Your task to perform on an android device: set the stopwatch Image 0: 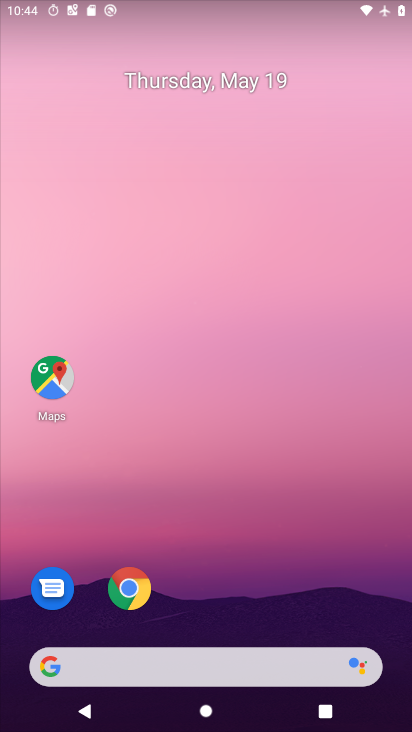
Step 0: press home button
Your task to perform on an android device: set the stopwatch Image 1: 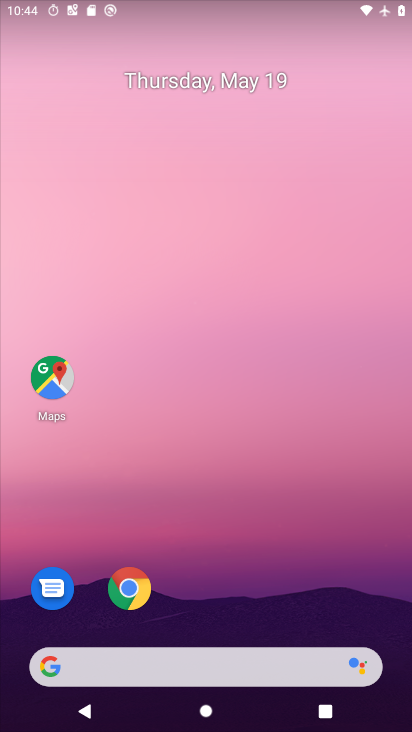
Step 1: drag from (196, 661) to (309, 272)
Your task to perform on an android device: set the stopwatch Image 2: 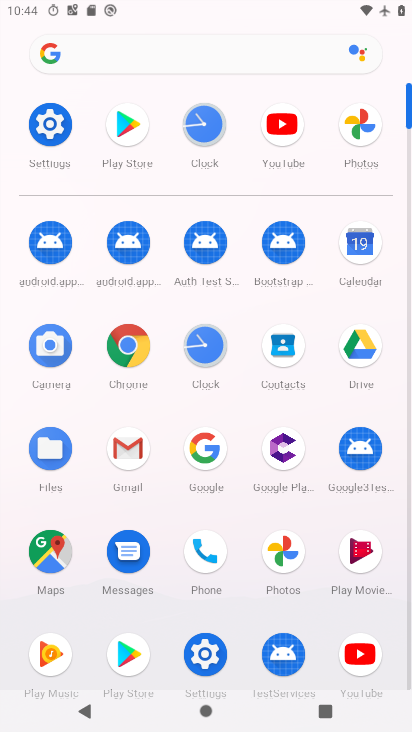
Step 2: click (210, 130)
Your task to perform on an android device: set the stopwatch Image 3: 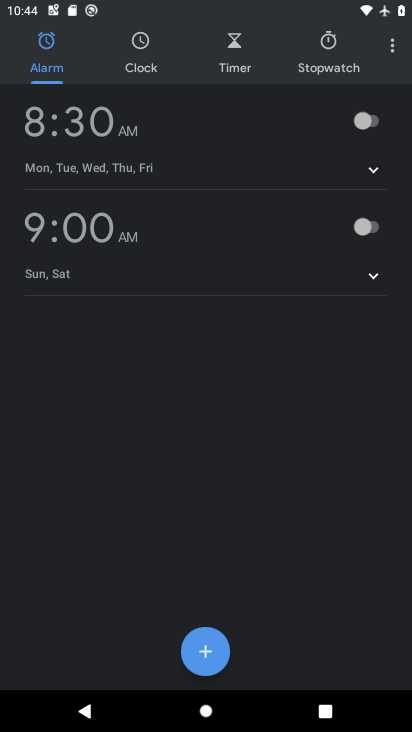
Step 3: click (305, 49)
Your task to perform on an android device: set the stopwatch Image 4: 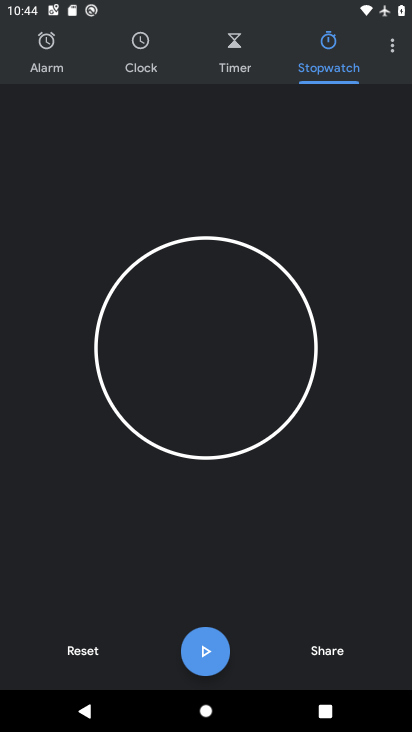
Step 4: click (84, 646)
Your task to perform on an android device: set the stopwatch Image 5: 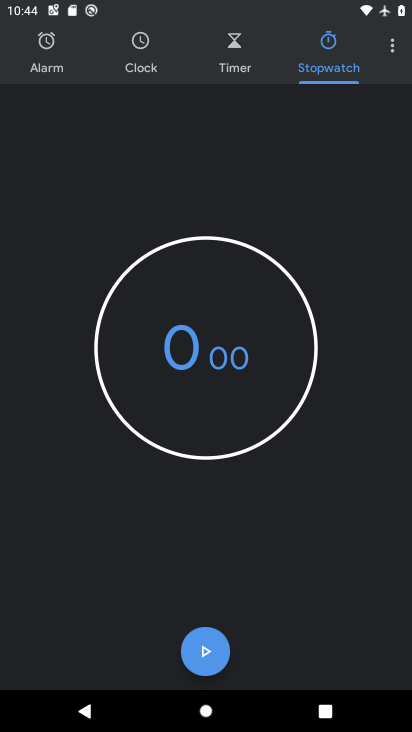
Step 5: click (226, 366)
Your task to perform on an android device: set the stopwatch Image 6: 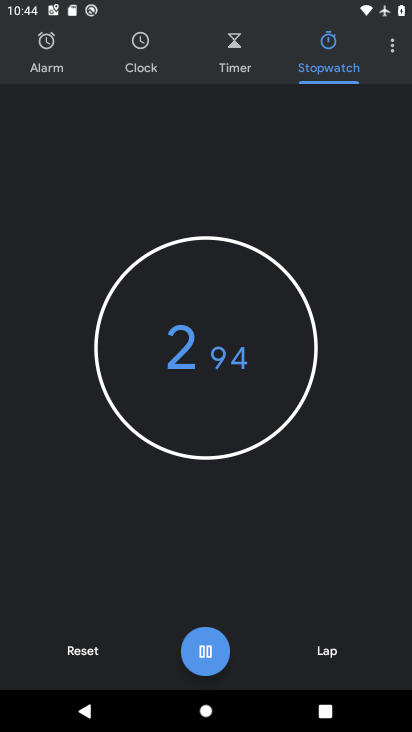
Step 6: click (216, 353)
Your task to perform on an android device: set the stopwatch Image 7: 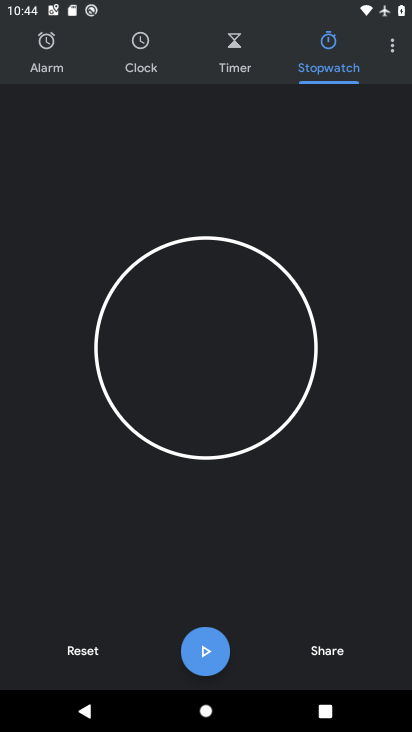
Step 7: task complete